Your task to perform on an android device: Go to calendar. Show me events next week Image 0: 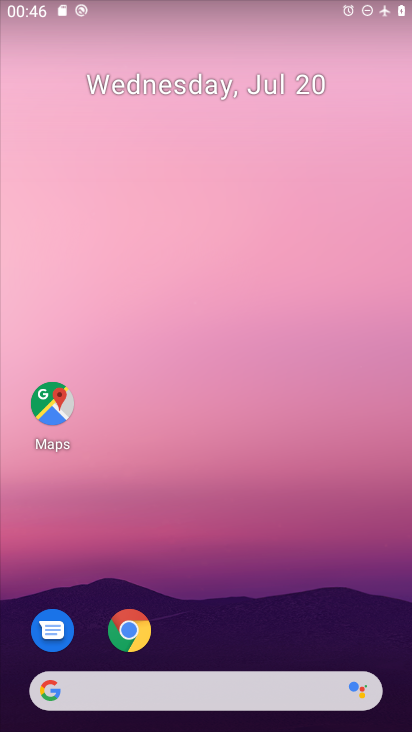
Step 0: drag from (186, 450) to (186, 165)
Your task to perform on an android device: Go to calendar. Show me events next week Image 1: 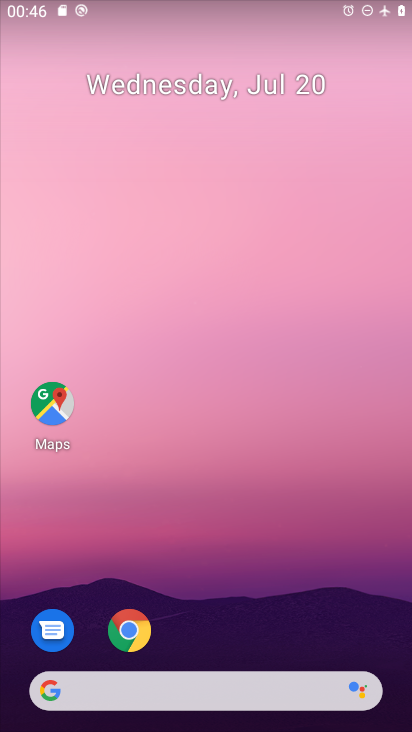
Step 1: drag from (221, 606) to (221, 170)
Your task to perform on an android device: Go to calendar. Show me events next week Image 2: 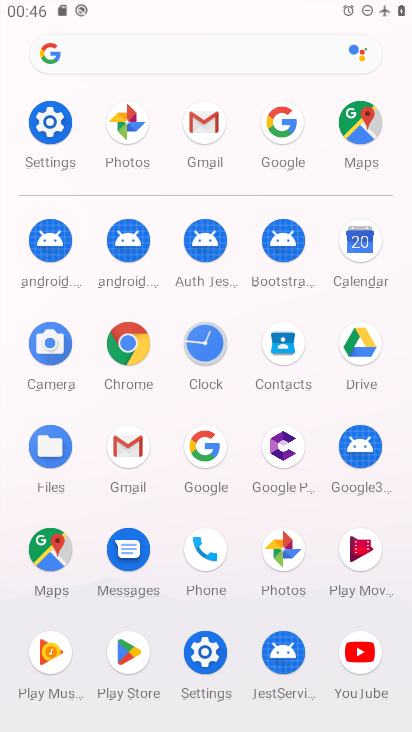
Step 2: click (345, 257)
Your task to perform on an android device: Go to calendar. Show me events next week Image 3: 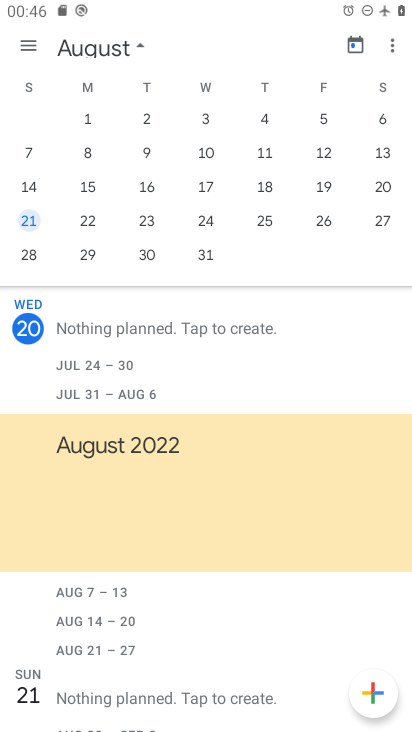
Step 3: click (37, 50)
Your task to perform on an android device: Go to calendar. Show me events next week Image 4: 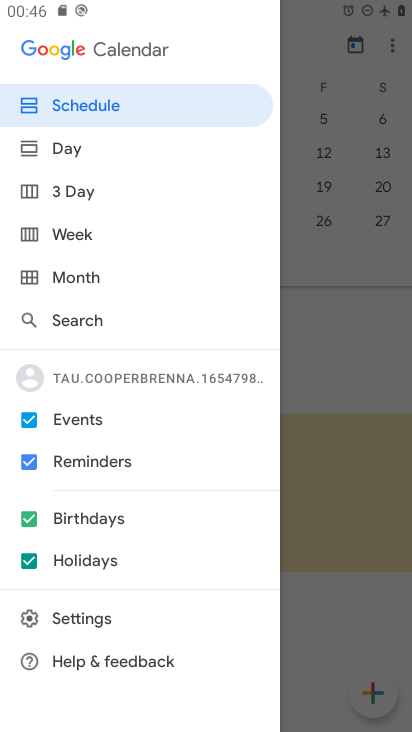
Step 4: click (333, 186)
Your task to perform on an android device: Go to calendar. Show me events next week Image 5: 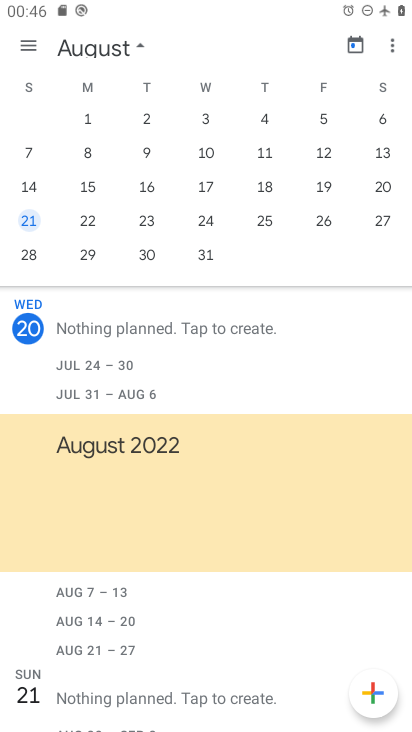
Step 5: drag from (54, 147) to (371, 152)
Your task to perform on an android device: Go to calendar. Show me events next week Image 6: 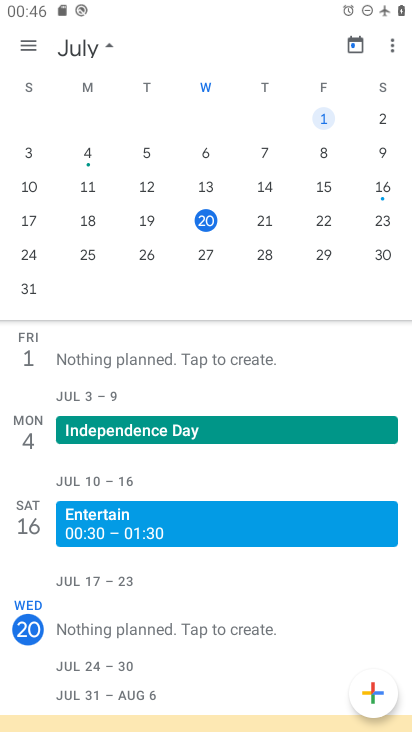
Step 6: click (147, 256)
Your task to perform on an android device: Go to calendar. Show me events next week Image 7: 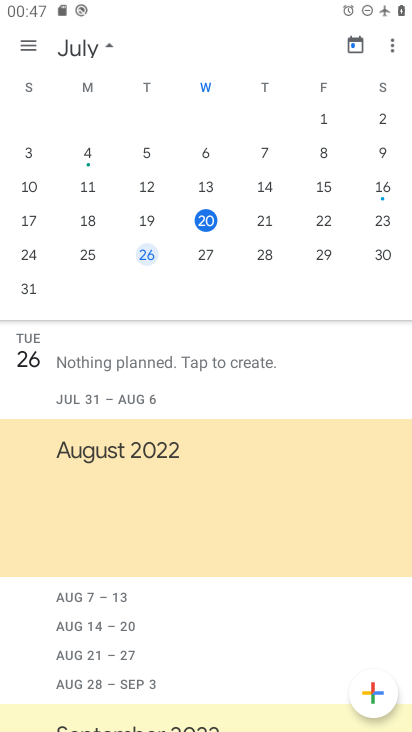
Step 7: click (260, 241)
Your task to perform on an android device: Go to calendar. Show me events next week Image 8: 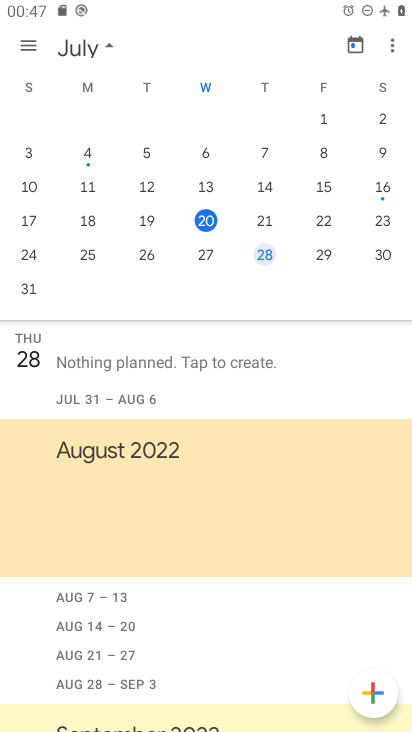
Step 8: task complete